Your task to perform on an android device: open chrome and create a bookmark for the current page Image 0: 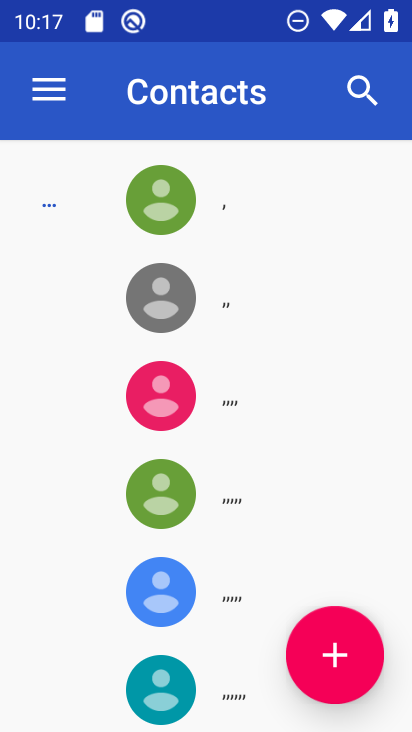
Step 0: press home button
Your task to perform on an android device: open chrome and create a bookmark for the current page Image 1: 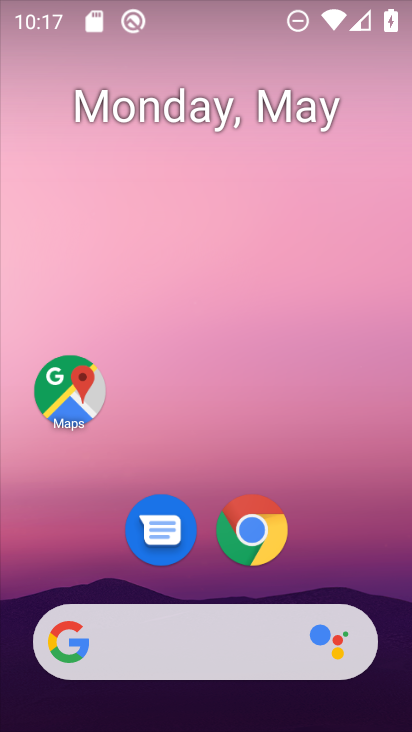
Step 1: click (247, 538)
Your task to perform on an android device: open chrome and create a bookmark for the current page Image 2: 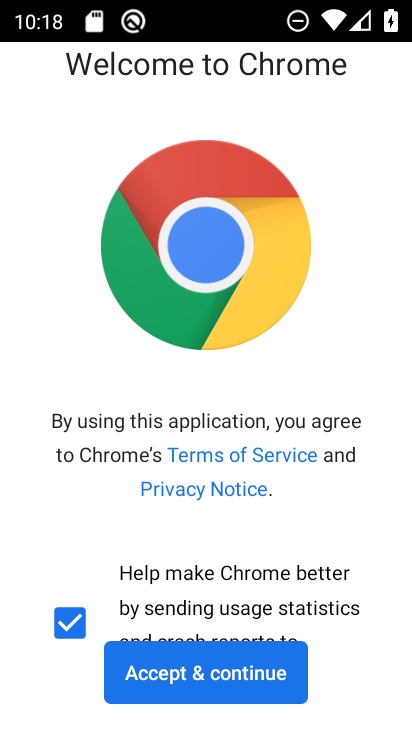
Step 2: click (190, 662)
Your task to perform on an android device: open chrome and create a bookmark for the current page Image 3: 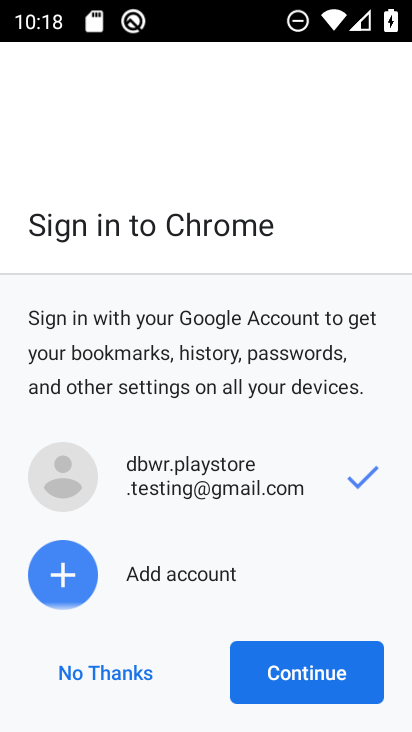
Step 3: click (282, 660)
Your task to perform on an android device: open chrome and create a bookmark for the current page Image 4: 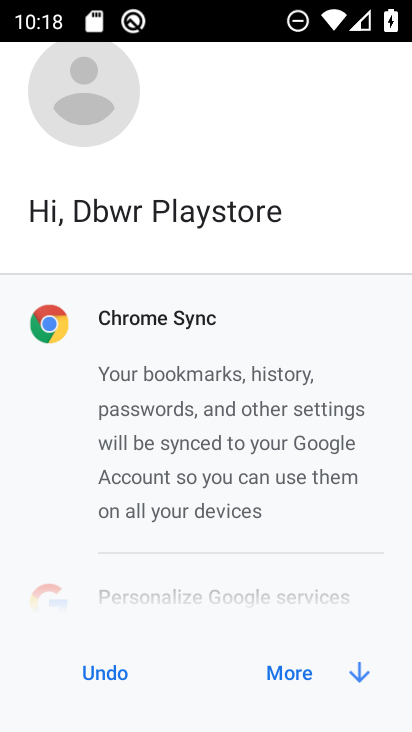
Step 4: click (282, 660)
Your task to perform on an android device: open chrome and create a bookmark for the current page Image 5: 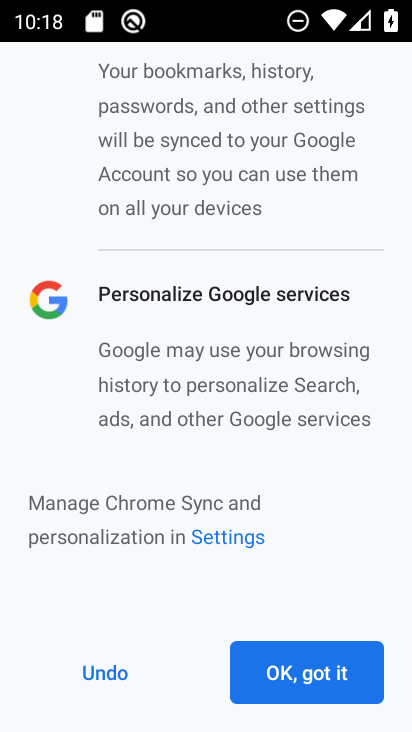
Step 5: click (282, 660)
Your task to perform on an android device: open chrome and create a bookmark for the current page Image 6: 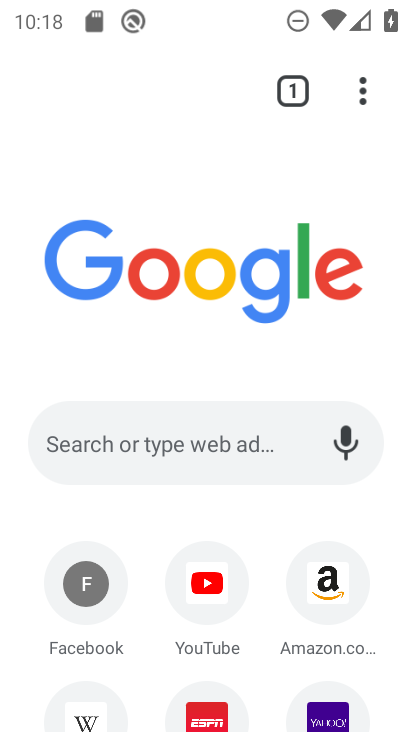
Step 6: click (362, 82)
Your task to perform on an android device: open chrome and create a bookmark for the current page Image 7: 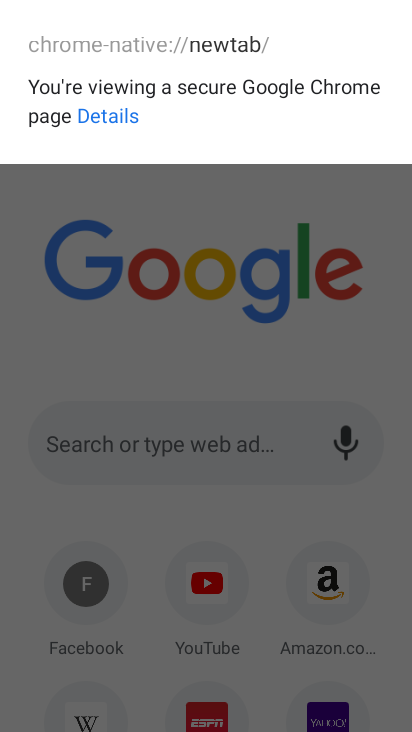
Step 7: click (315, 274)
Your task to perform on an android device: open chrome and create a bookmark for the current page Image 8: 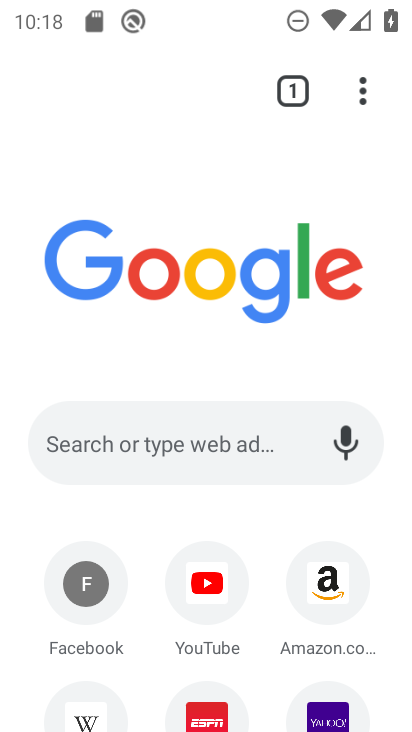
Step 8: task complete